Your task to perform on an android device: turn on airplane mode Image 0: 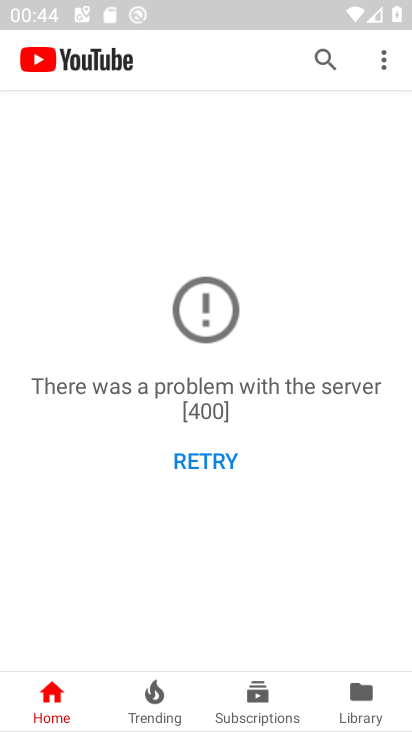
Step 0: drag from (368, 7) to (219, 721)
Your task to perform on an android device: turn on airplane mode Image 1: 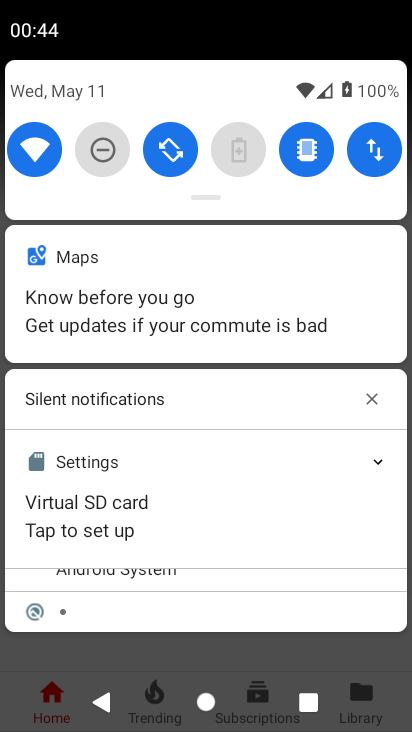
Step 1: drag from (184, 176) to (296, 568)
Your task to perform on an android device: turn on airplane mode Image 2: 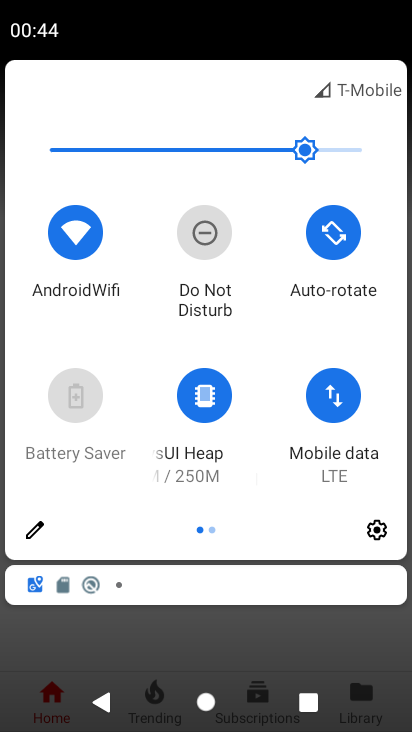
Step 2: drag from (314, 425) to (5, 320)
Your task to perform on an android device: turn on airplane mode Image 3: 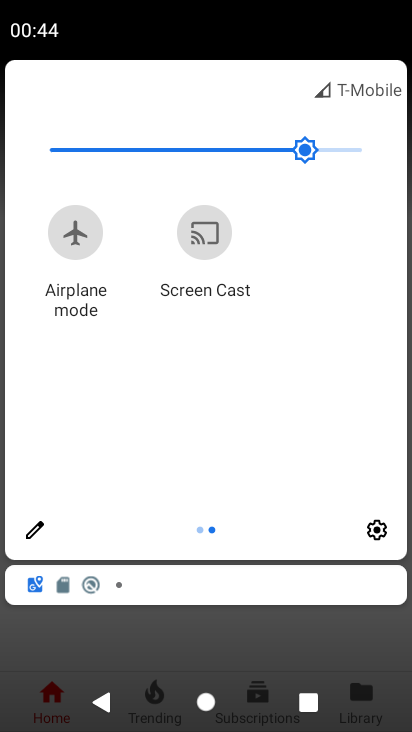
Step 3: click (87, 238)
Your task to perform on an android device: turn on airplane mode Image 4: 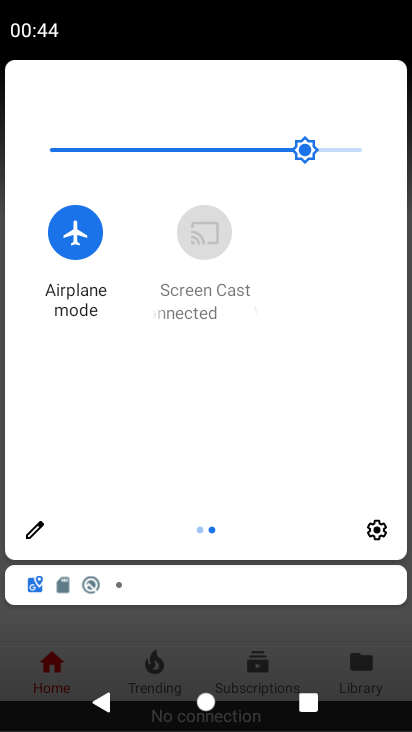
Step 4: task complete